Your task to perform on an android device: toggle improve location accuracy Image 0: 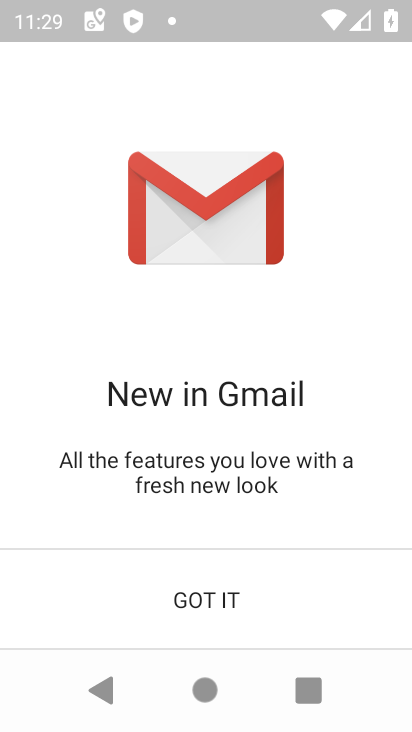
Step 0: press home button
Your task to perform on an android device: toggle improve location accuracy Image 1: 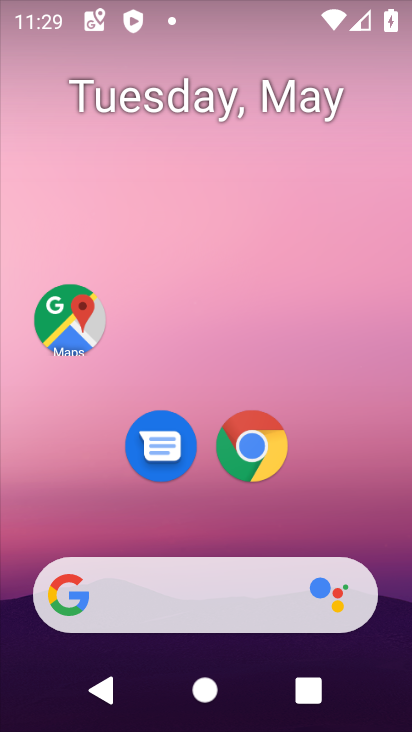
Step 1: drag from (234, 689) to (204, 108)
Your task to perform on an android device: toggle improve location accuracy Image 2: 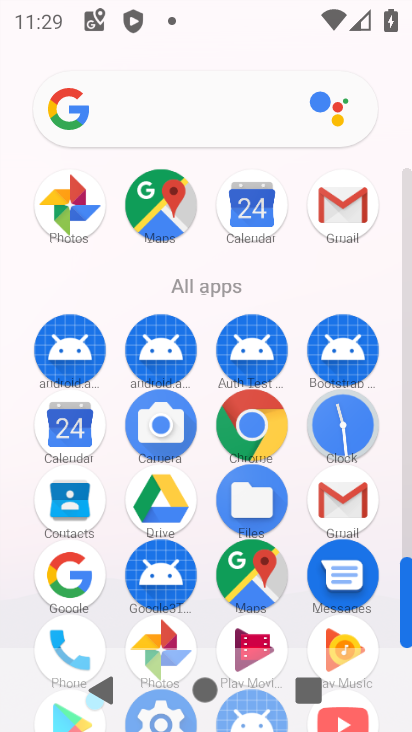
Step 2: drag from (210, 605) to (217, 249)
Your task to perform on an android device: toggle improve location accuracy Image 3: 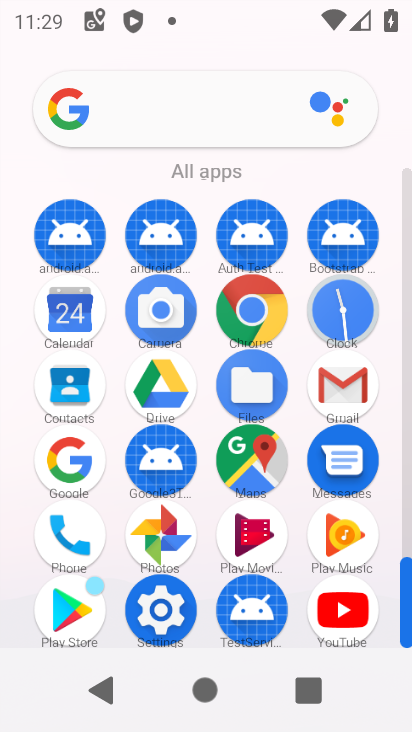
Step 3: click (172, 620)
Your task to perform on an android device: toggle improve location accuracy Image 4: 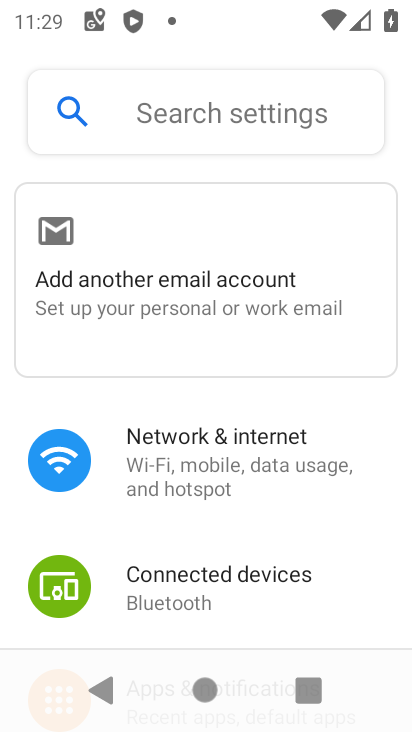
Step 4: drag from (171, 624) to (173, 331)
Your task to perform on an android device: toggle improve location accuracy Image 5: 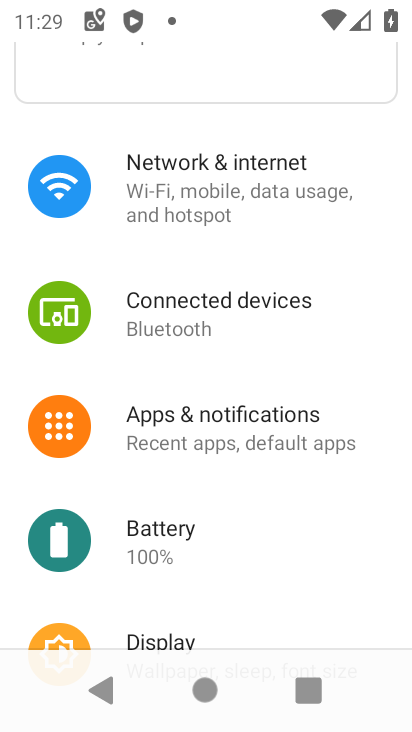
Step 5: drag from (182, 606) to (189, 544)
Your task to perform on an android device: toggle improve location accuracy Image 6: 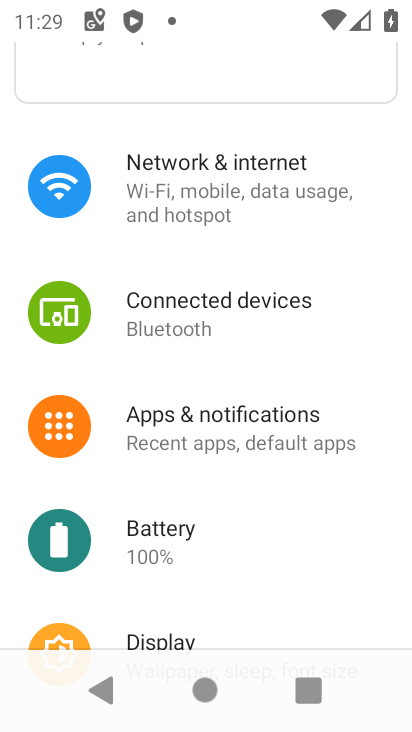
Step 6: drag from (196, 340) to (196, 268)
Your task to perform on an android device: toggle improve location accuracy Image 7: 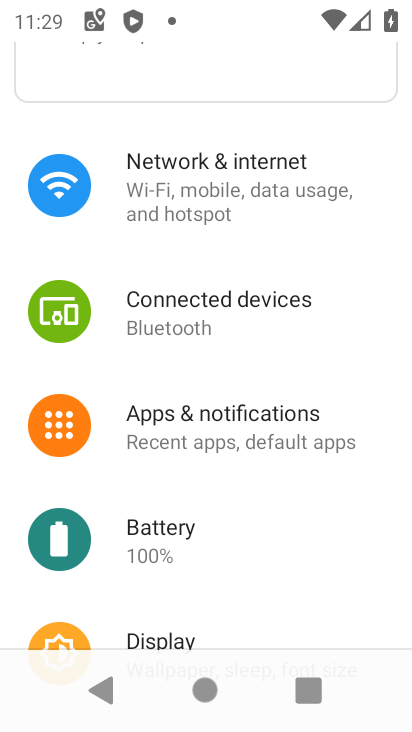
Step 7: drag from (188, 608) to (193, 269)
Your task to perform on an android device: toggle improve location accuracy Image 8: 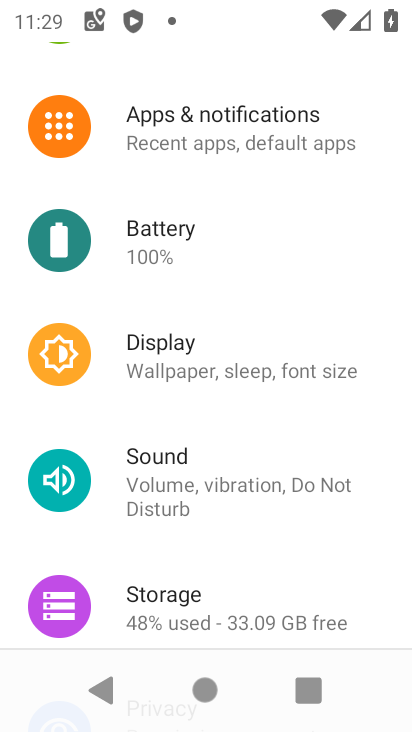
Step 8: drag from (181, 602) to (202, 313)
Your task to perform on an android device: toggle improve location accuracy Image 9: 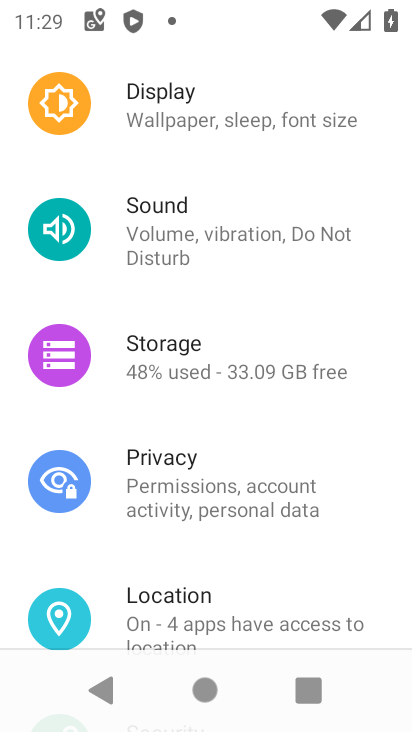
Step 9: click (152, 619)
Your task to perform on an android device: toggle improve location accuracy Image 10: 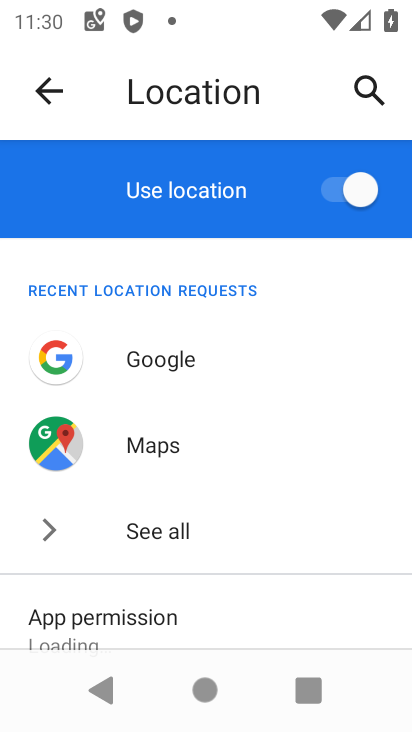
Step 10: drag from (152, 625) to (139, 217)
Your task to perform on an android device: toggle improve location accuracy Image 11: 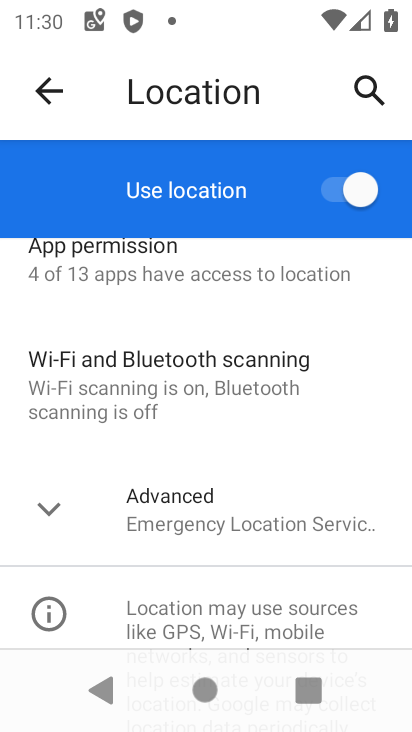
Step 11: click (161, 509)
Your task to perform on an android device: toggle improve location accuracy Image 12: 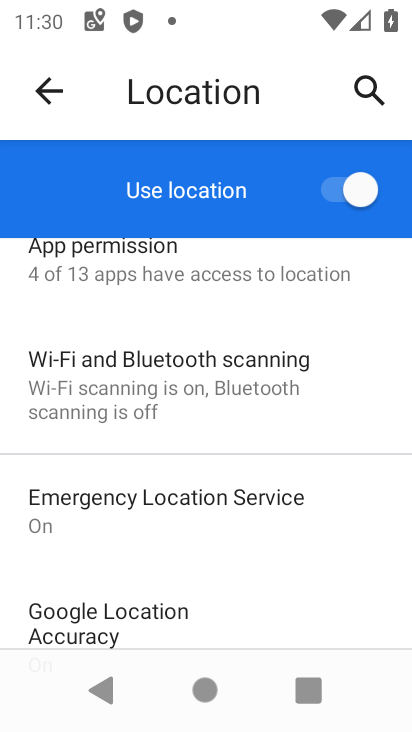
Step 12: click (94, 610)
Your task to perform on an android device: toggle improve location accuracy Image 13: 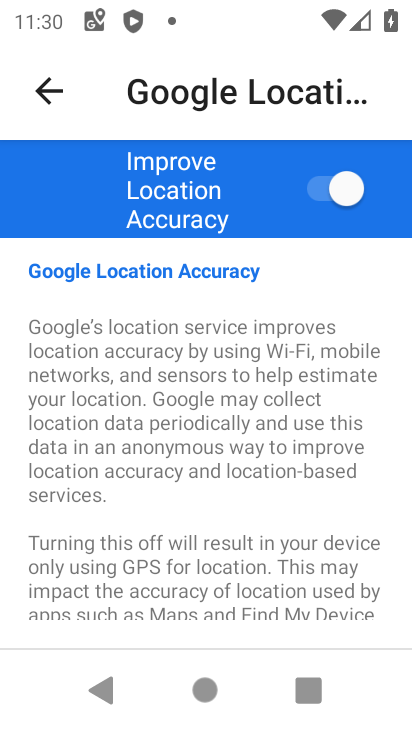
Step 13: click (324, 194)
Your task to perform on an android device: toggle improve location accuracy Image 14: 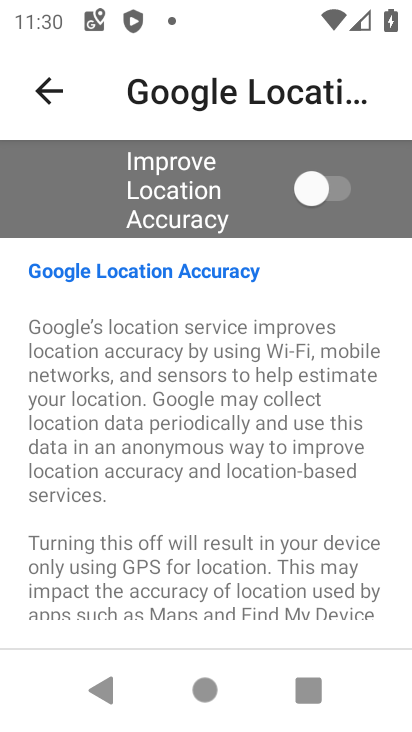
Step 14: task complete